Your task to perform on an android device: turn notification dots off Image 0: 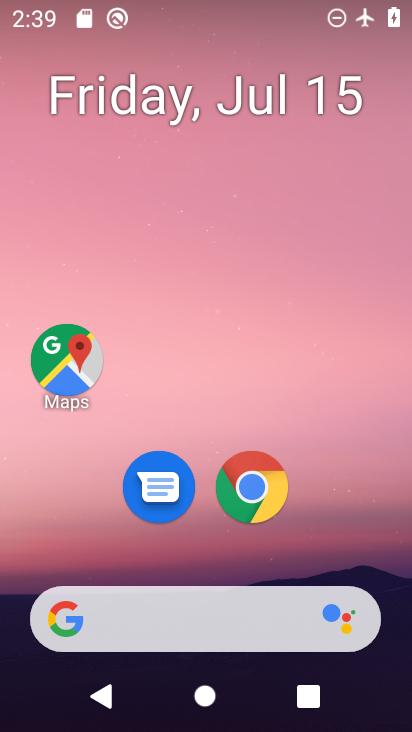
Step 0: drag from (239, 545) to (244, 11)
Your task to perform on an android device: turn notification dots off Image 1: 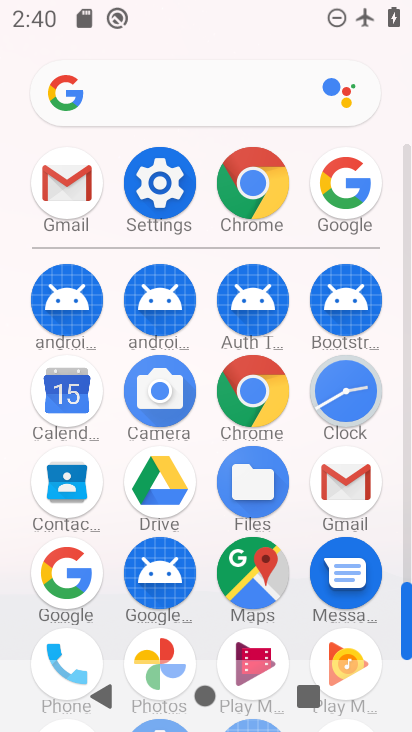
Step 1: click (162, 201)
Your task to perform on an android device: turn notification dots off Image 2: 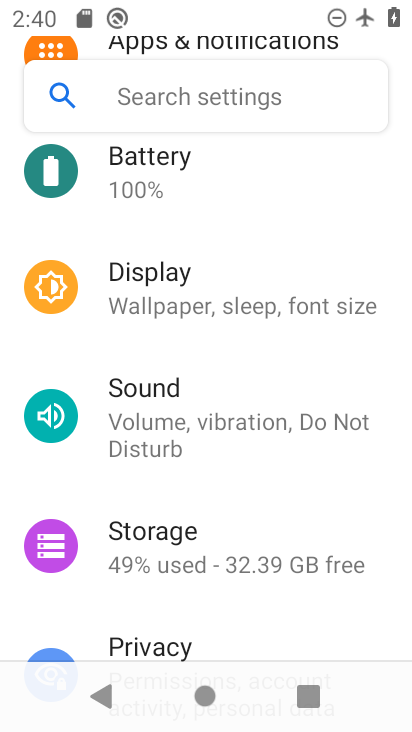
Step 2: drag from (171, 433) to (233, 188)
Your task to perform on an android device: turn notification dots off Image 3: 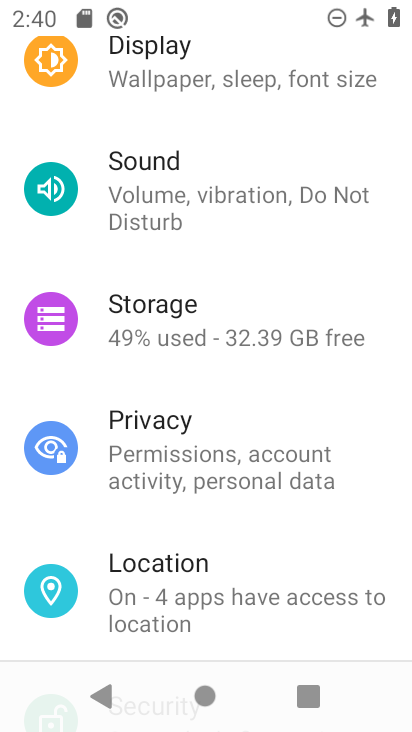
Step 3: drag from (234, 188) to (267, 644)
Your task to perform on an android device: turn notification dots off Image 4: 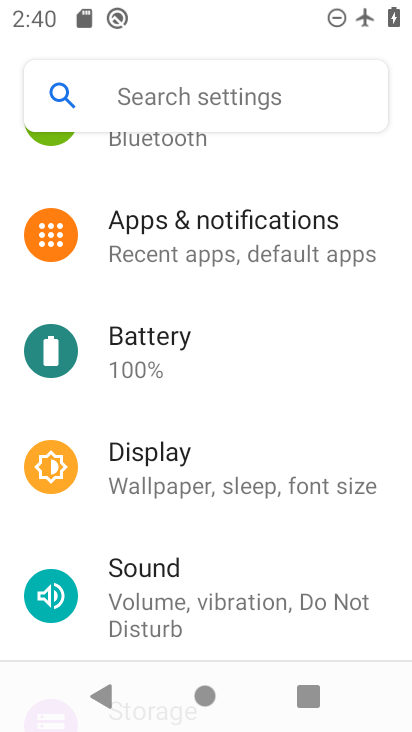
Step 4: click (278, 242)
Your task to perform on an android device: turn notification dots off Image 5: 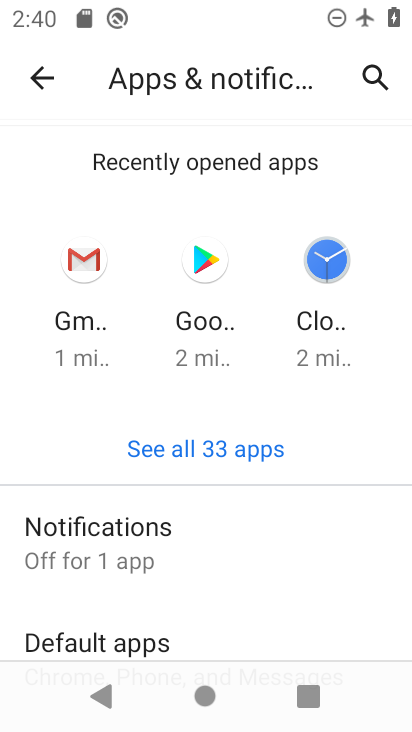
Step 5: click (206, 549)
Your task to perform on an android device: turn notification dots off Image 6: 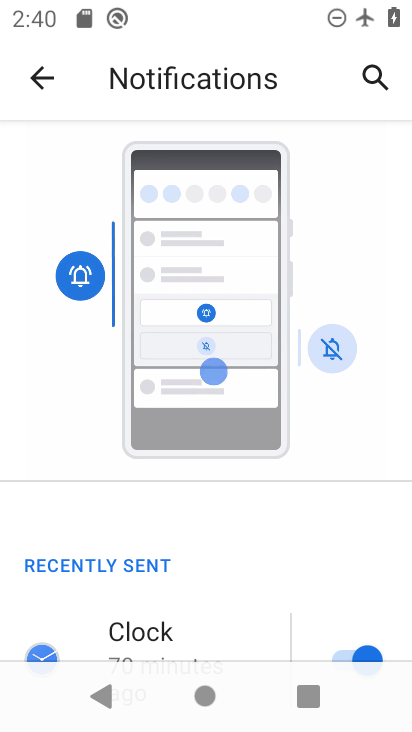
Step 6: drag from (133, 568) to (183, 262)
Your task to perform on an android device: turn notification dots off Image 7: 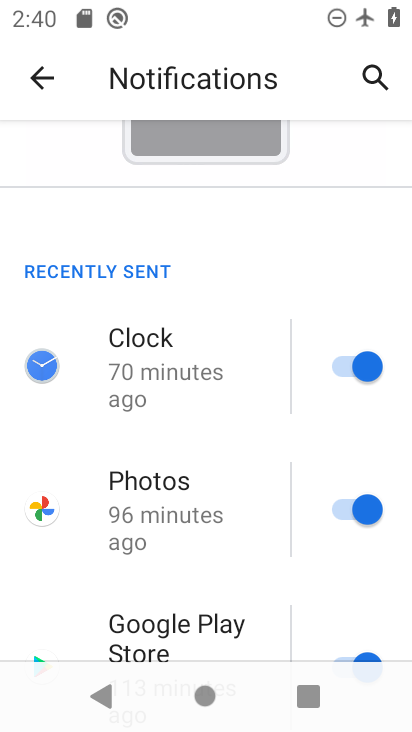
Step 7: drag from (187, 515) to (241, 249)
Your task to perform on an android device: turn notification dots off Image 8: 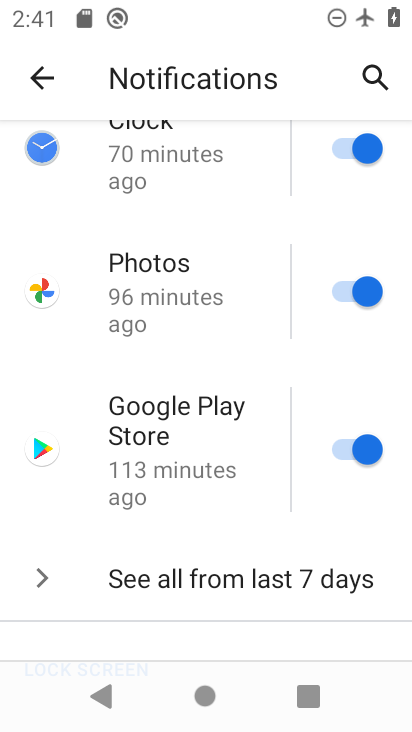
Step 8: drag from (224, 481) to (268, 169)
Your task to perform on an android device: turn notification dots off Image 9: 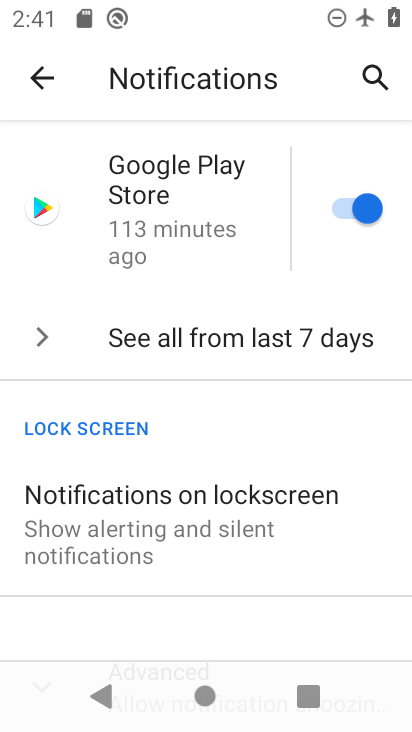
Step 9: drag from (177, 601) to (188, 302)
Your task to perform on an android device: turn notification dots off Image 10: 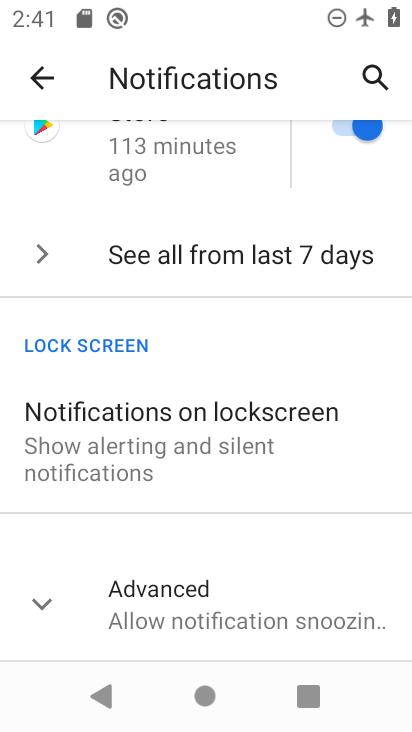
Step 10: click (210, 624)
Your task to perform on an android device: turn notification dots off Image 11: 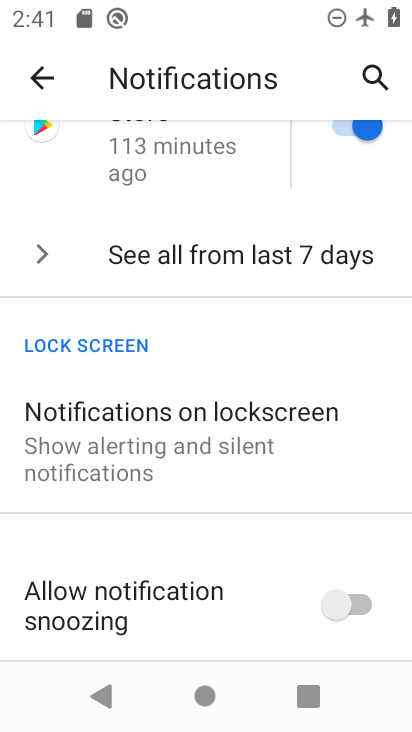
Step 11: task complete